Your task to perform on an android device: change timer sound Image 0: 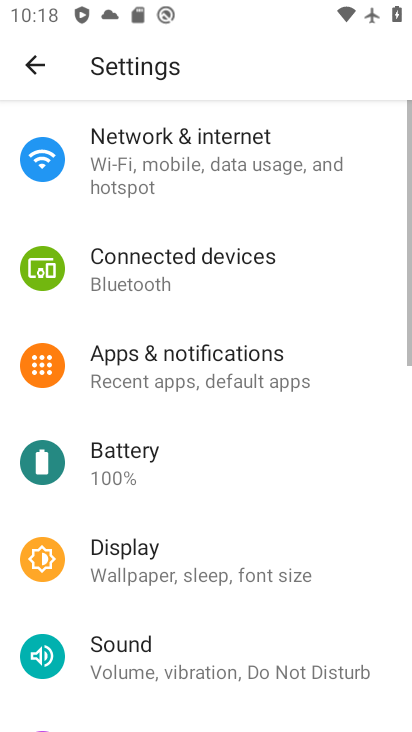
Step 0: press home button
Your task to perform on an android device: change timer sound Image 1: 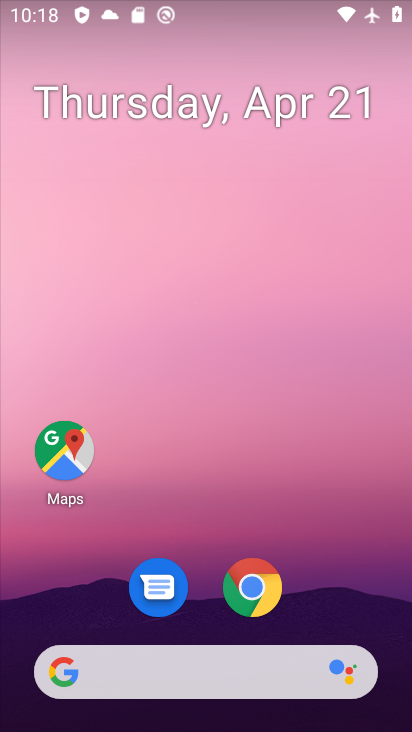
Step 1: drag from (348, 594) to (340, 103)
Your task to perform on an android device: change timer sound Image 2: 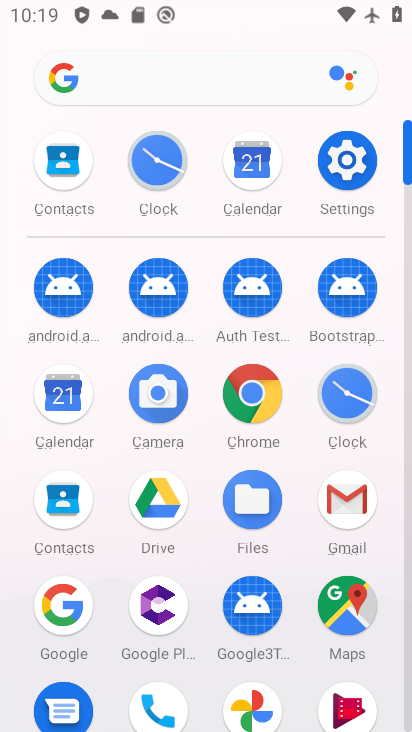
Step 2: click (349, 388)
Your task to perform on an android device: change timer sound Image 3: 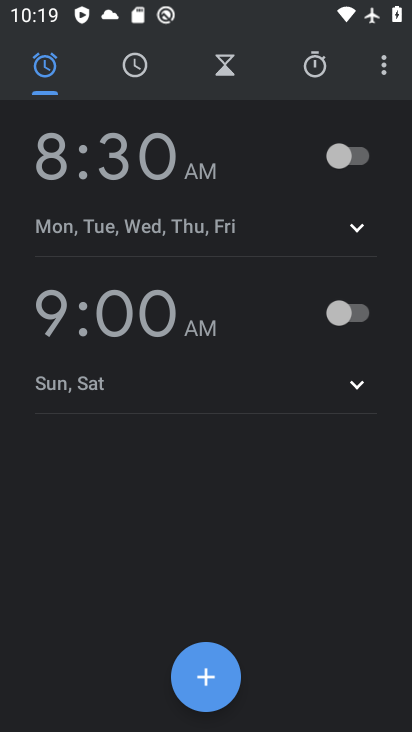
Step 3: click (386, 70)
Your task to perform on an android device: change timer sound Image 4: 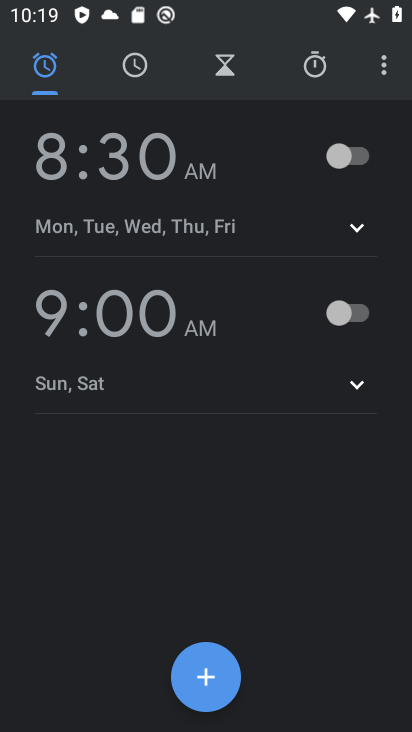
Step 4: click (384, 63)
Your task to perform on an android device: change timer sound Image 5: 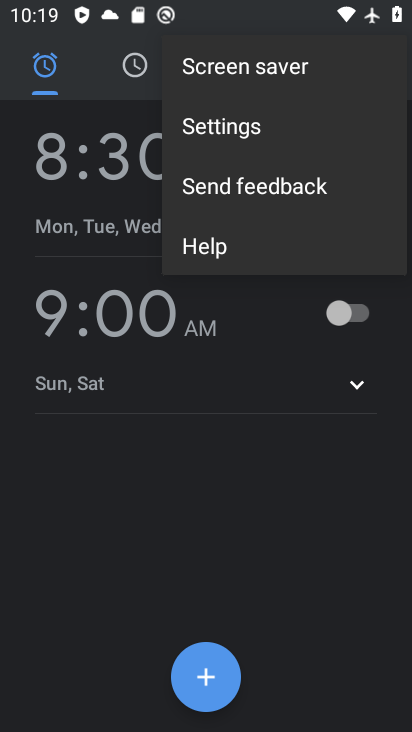
Step 5: click (271, 125)
Your task to perform on an android device: change timer sound Image 6: 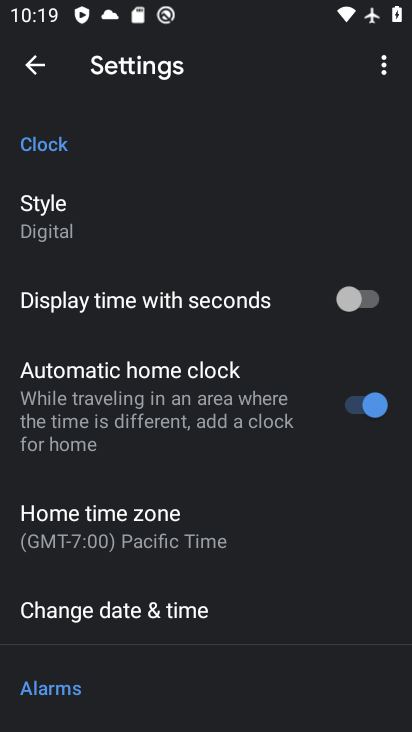
Step 6: drag from (295, 586) to (315, 417)
Your task to perform on an android device: change timer sound Image 7: 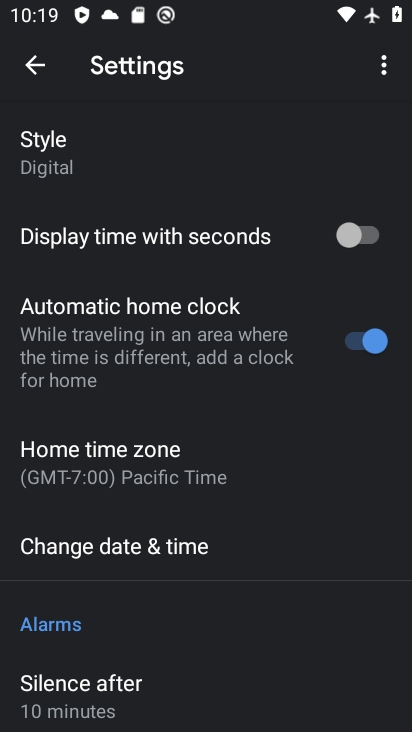
Step 7: drag from (321, 623) to (337, 421)
Your task to perform on an android device: change timer sound Image 8: 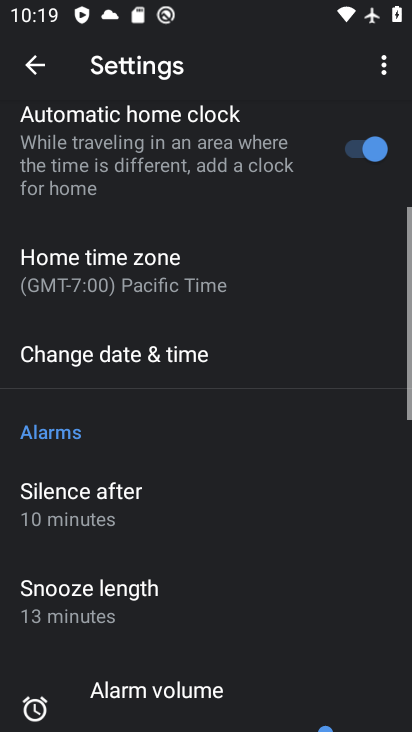
Step 8: drag from (327, 575) to (332, 394)
Your task to perform on an android device: change timer sound Image 9: 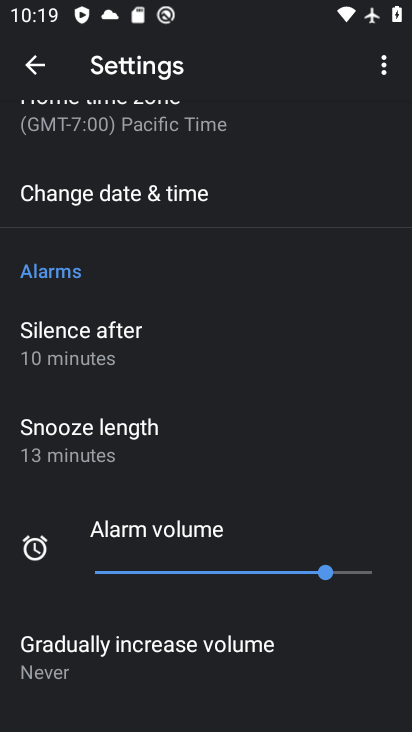
Step 9: drag from (353, 535) to (353, 367)
Your task to perform on an android device: change timer sound Image 10: 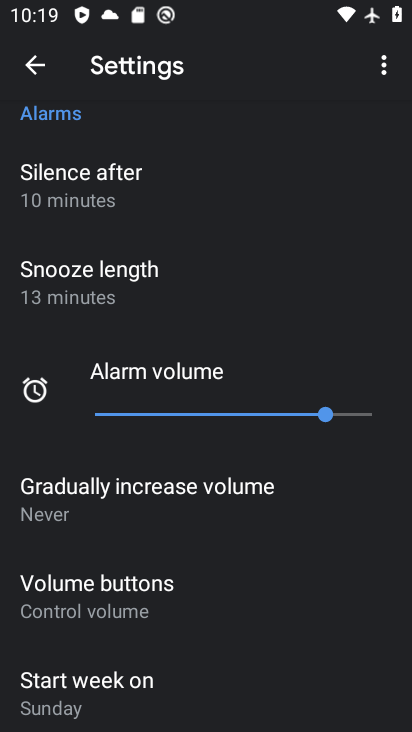
Step 10: drag from (332, 535) to (333, 303)
Your task to perform on an android device: change timer sound Image 11: 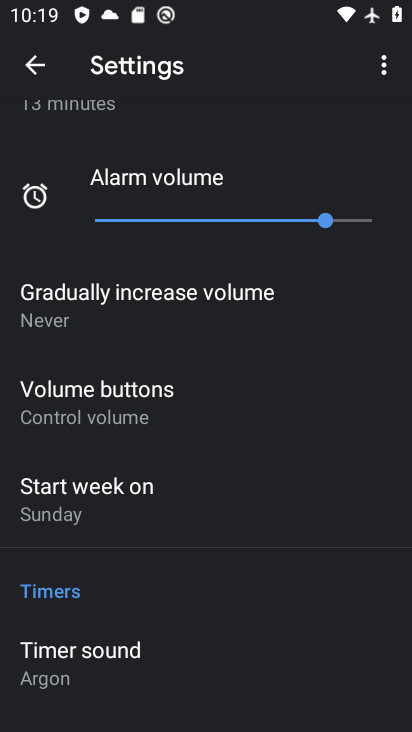
Step 11: drag from (300, 602) to (298, 398)
Your task to perform on an android device: change timer sound Image 12: 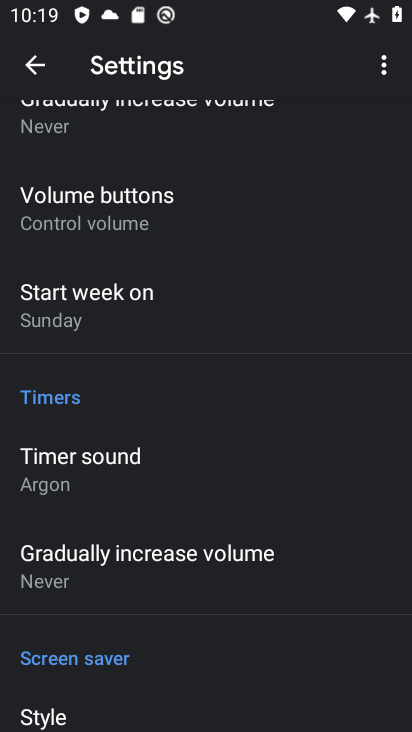
Step 12: click (94, 481)
Your task to perform on an android device: change timer sound Image 13: 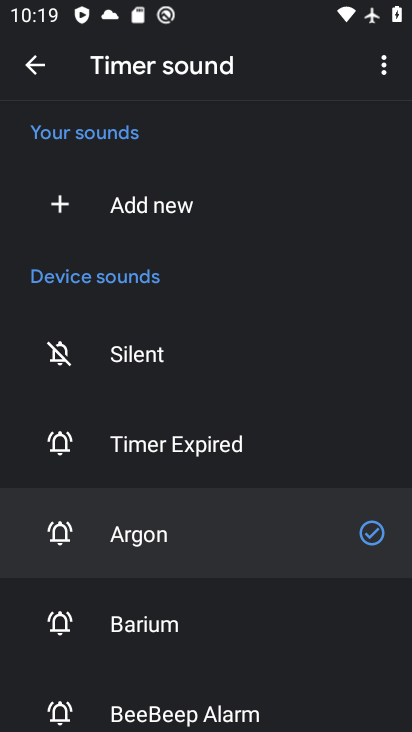
Step 13: click (155, 348)
Your task to perform on an android device: change timer sound Image 14: 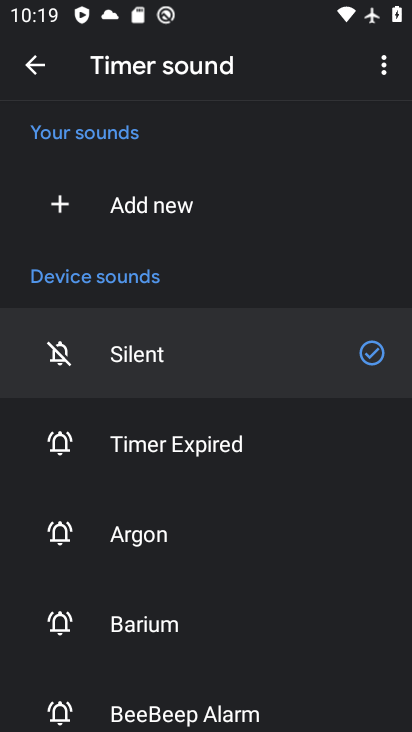
Step 14: task complete